Your task to perform on an android device: Turn off the flashlight Image 0: 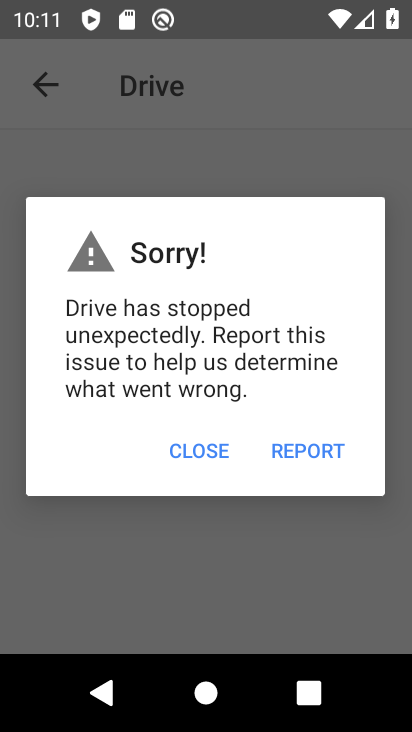
Step 0: press home button
Your task to perform on an android device: Turn off the flashlight Image 1: 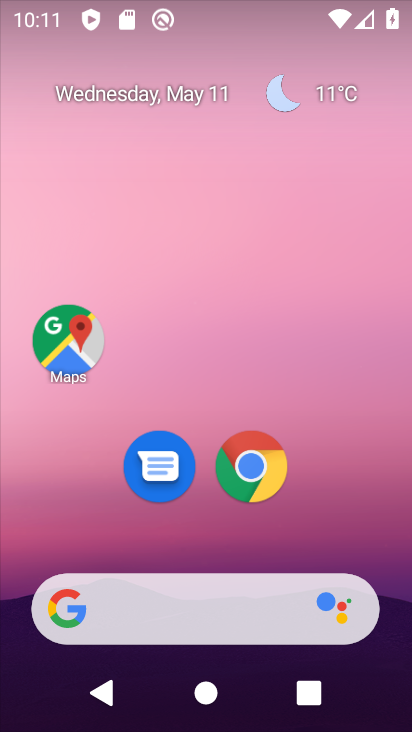
Step 1: drag from (280, 8) to (234, 396)
Your task to perform on an android device: Turn off the flashlight Image 2: 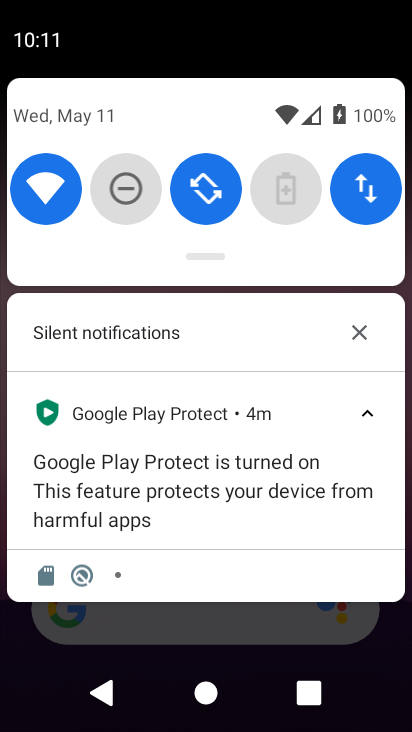
Step 2: drag from (209, 260) to (201, 682)
Your task to perform on an android device: Turn off the flashlight Image 3: 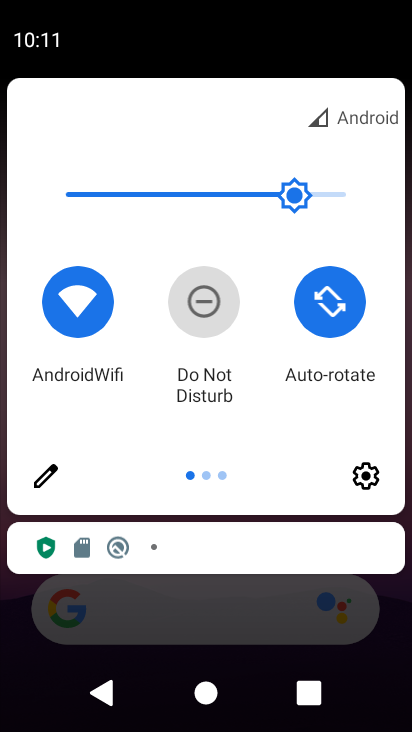
Step 3: click (44, 468)
Your task to perform on an android device: Turn off the flashlight Image 4: 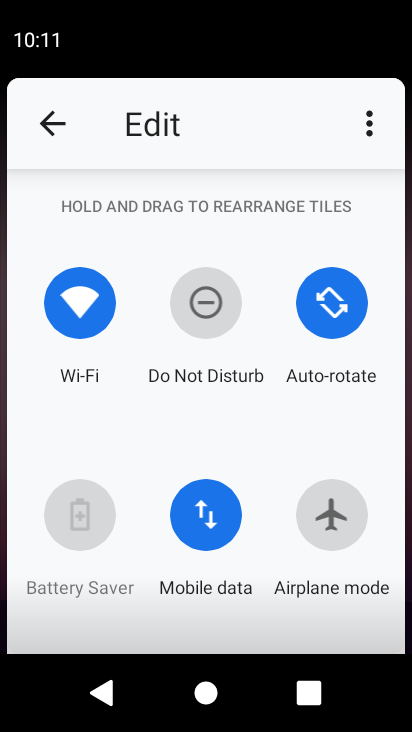
Step 4: task complete